Your task to perform on an android device: Go to settings Image 0: 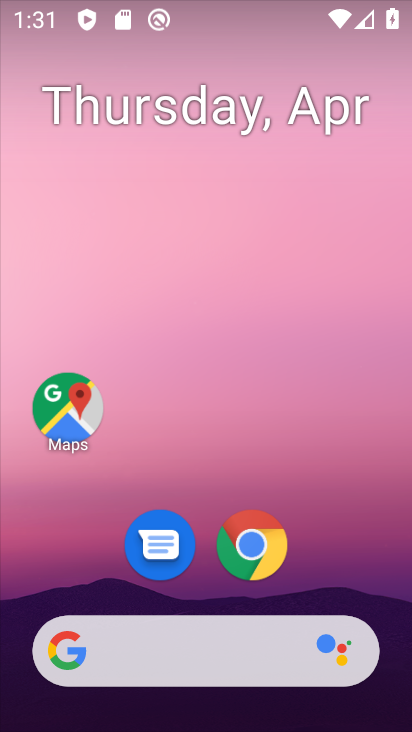
Step 0: click (231, 138)
Your task to perform on an android device: Go to settings Image 1: 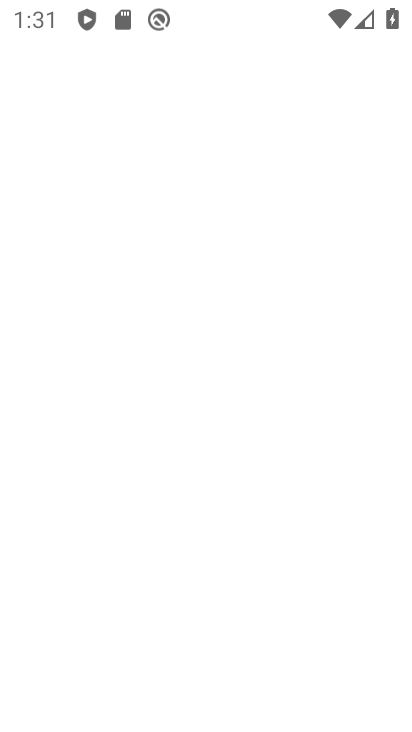
Step 1: drag from (290, 339) to (180, 27)
Your task to perform on an android device: Go to settings Image 2: 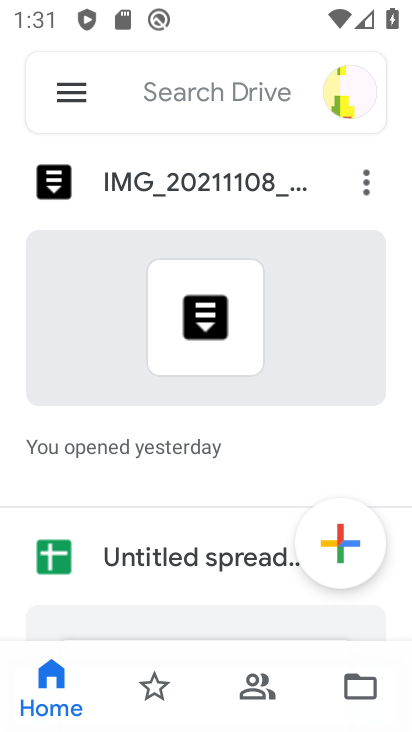
Step 2: press home button
Your task to perform on an android device: Go to settings Image 3: 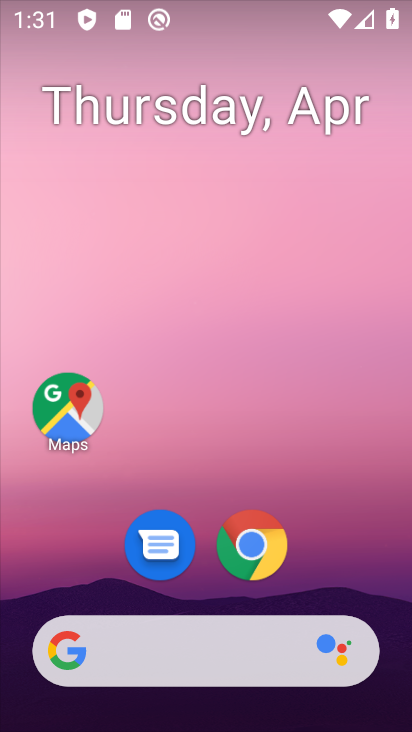
Step 3: drag from (337, 471) to (186, 249)
Your task to perform on an android device: Go to settings Image 4: 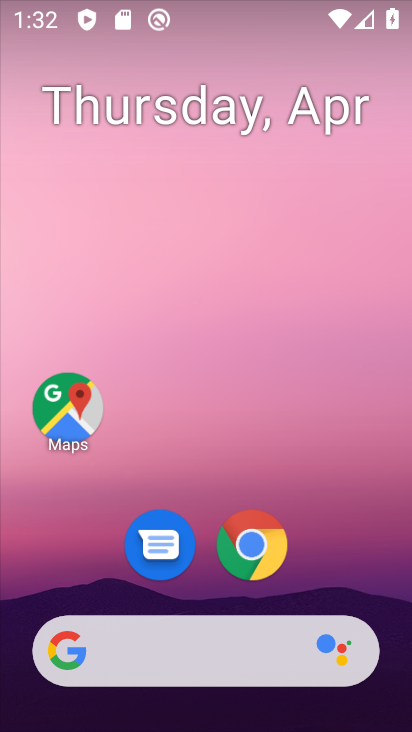
Step 4: drag from (318, 556) to (102, 137)
Your task to perform on an android device: Go to settings Image 5: 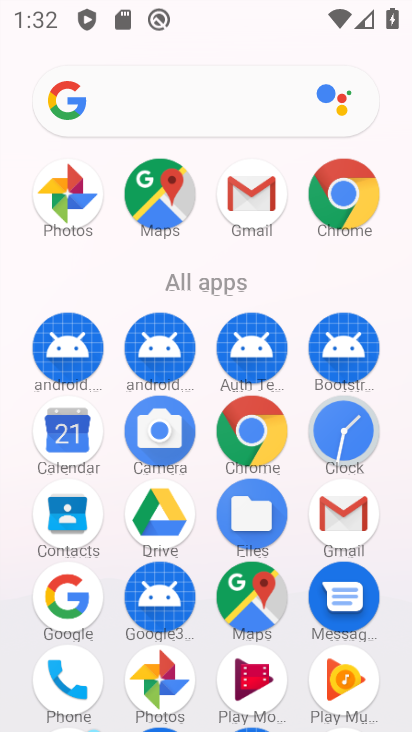
Step 5: drag from (206, 611) to (63, 216)
Your task to perform on an android device: Go to settings Image 6: 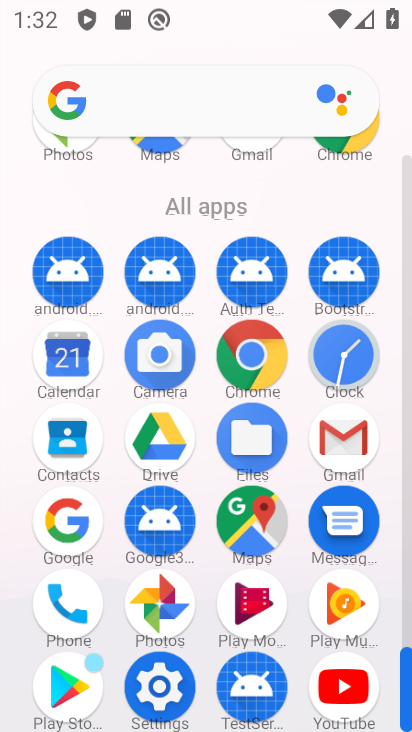
Step 6: click (178, 663)
Your task to perform on an android device: Go to settings Image 7: 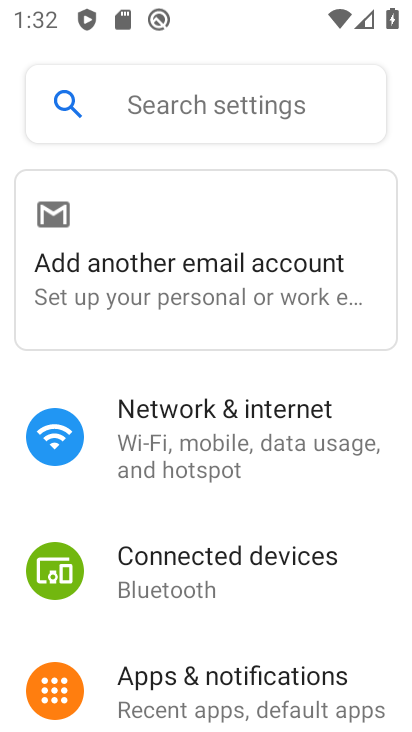
Step 7: task complete